Your task to perform on an android device: all mails in gmail Image 0: 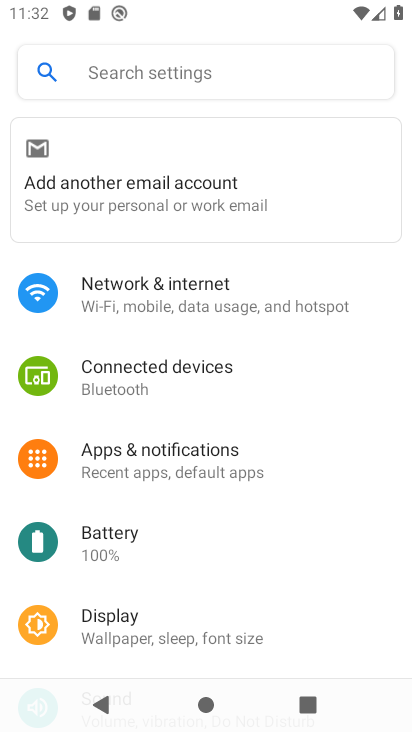
Step 0: press home button
Your task to perform on an android device: all mails in gmail Image 1: 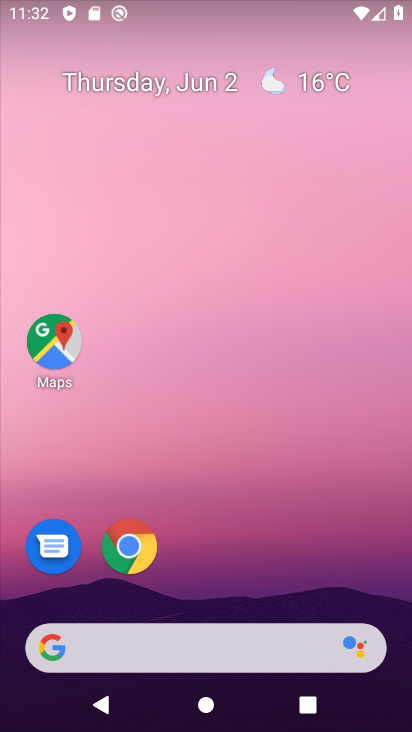
Step 1: drag from (286, 572) to (302, 141)
Your task to perform on an android device: all mails in gmail Image 2: 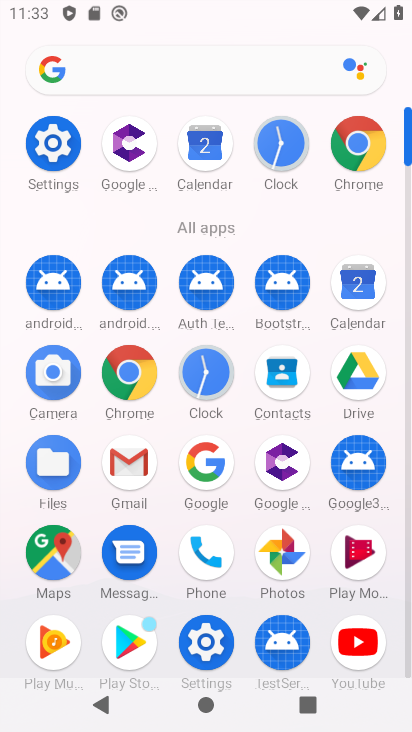
Step 2: click (119, 488)
Your task to perform on an android device: all mails in gmail Image 3: 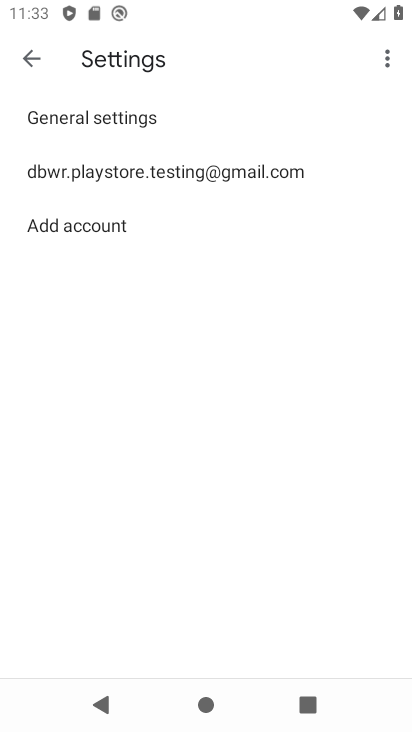
Step 3: click (53, 176)
Your task to perform on an android device: all mails in gmail Image 4: 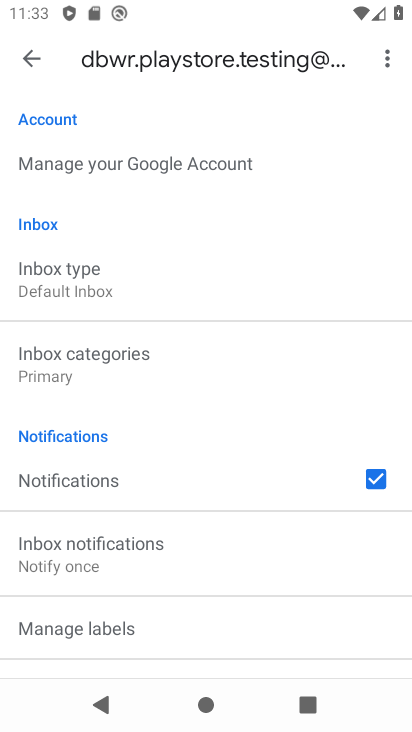
Step 4: drag from (259, 552) to (240, 314)
Your task to perform on an android device: all mails in gmail Image 5: 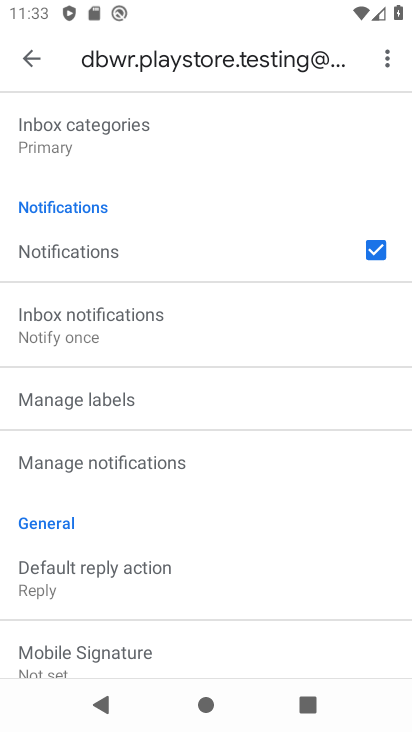
Step 5: click (57, 60)
Your task to perform on an android device: all mails in gmail Image 6: 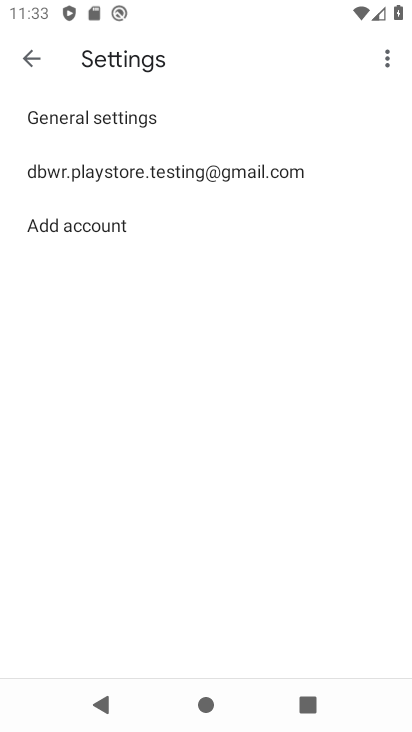
Step 6: click (57, 60)
Your task to perform on an android device: all mails in gmail Image 7: 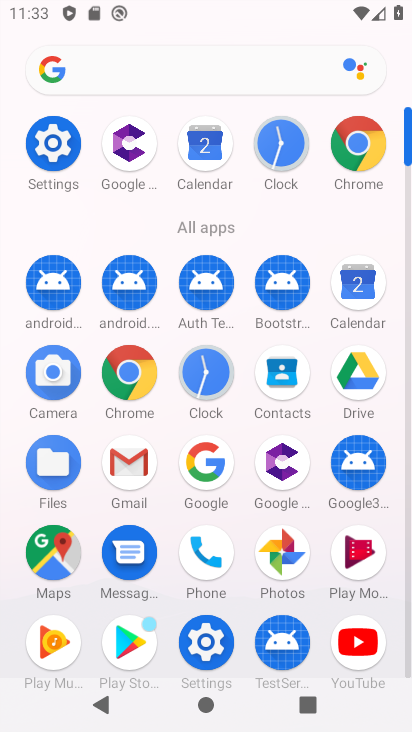
Step 7: click (141, 475)
Your task to perform on an android device: all mails in gmail Image 8: 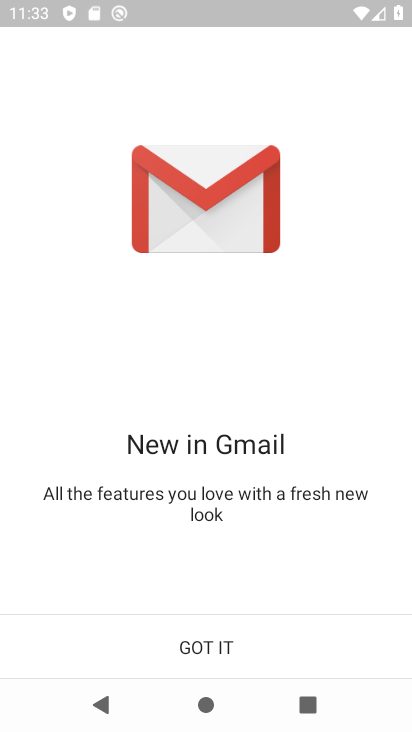
Step 8: click (229, 649)
Your task to perform on an android device: all mails in gmail Image 9: 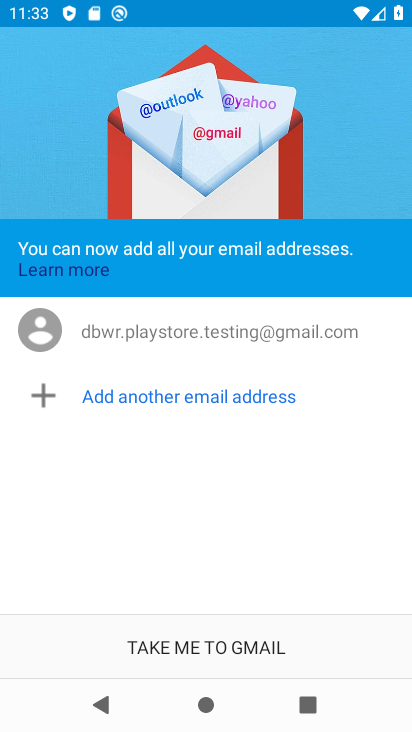
Step 9: click (223, 650)
Your task to perform on an android device: all mails in gmail Image 10: 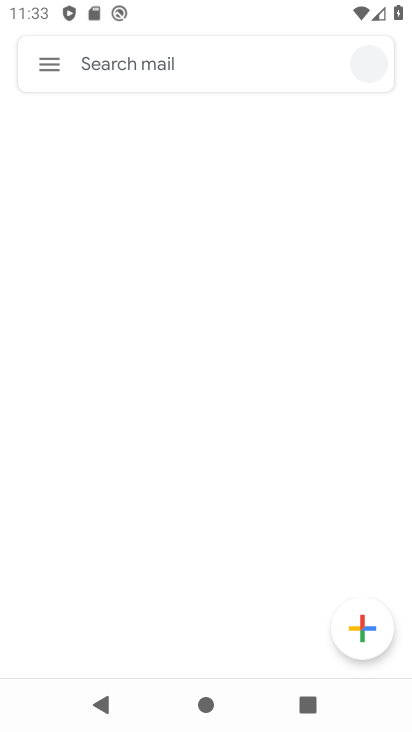
Step 10: click (39, 75)
Your task to perform on an android device: all mails in gmail Image 11: 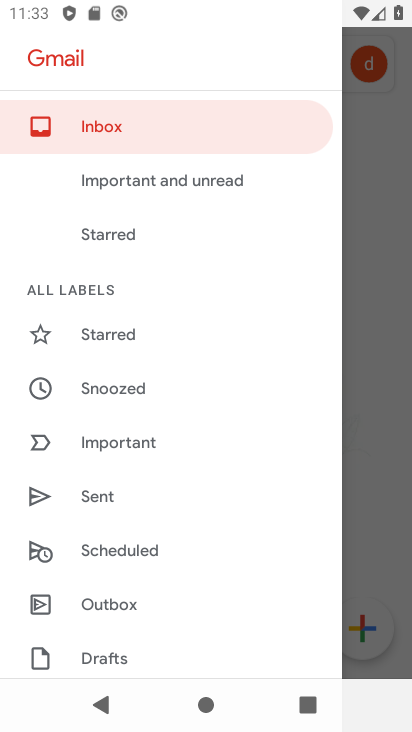
Step 11: drag from (181, 570) to (218, 247)
Your task to perform on an android device: all mails in gmail Image 12: 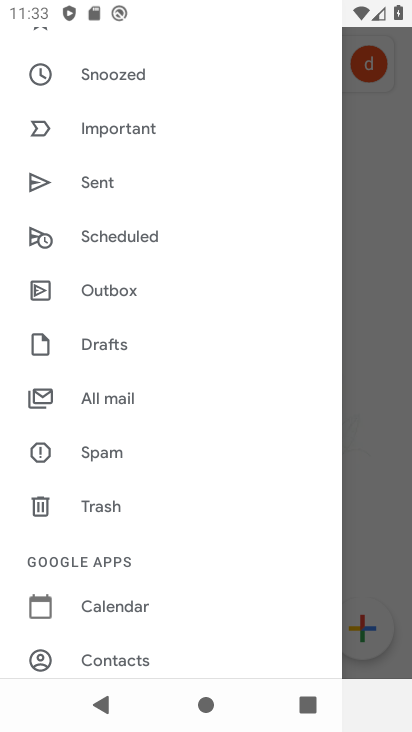
Step 12: click (141, 398)
Your task to perform on an android device: all mails in gmail Image 13: 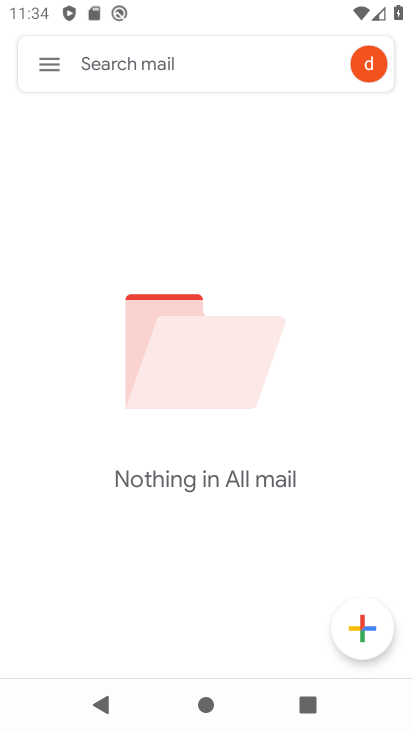
Step 13: task complete